Your task to perform on an android device: turn pop-ups off in chrome Image 0: 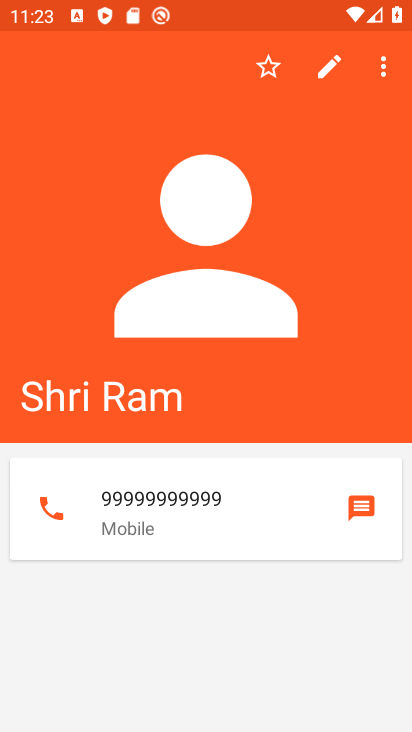
Step 0: press home button
Your task to perform on an android device: turn pop-ups off in chrome Image 1: 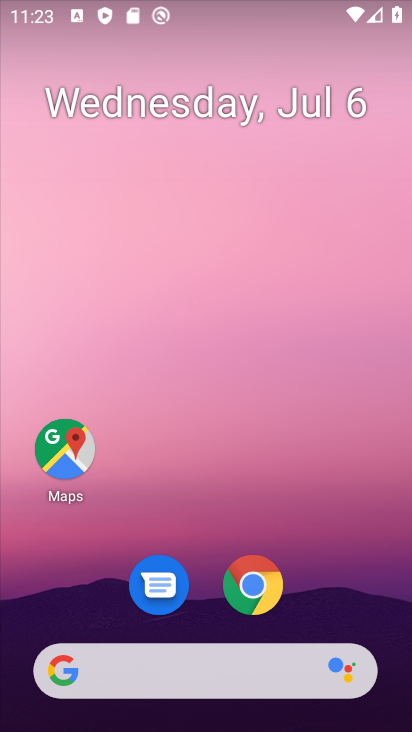
Step 1: drag from (205, 497) to (248, 61)
Your task to perform on an android device: turn pop-ups off in chrome Image 2: 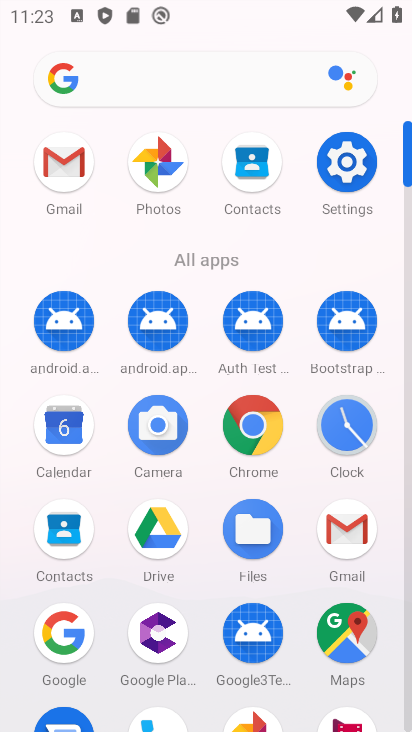
Step 2: click (239, 423)
Your task to perform on an android device: turn pop-ups off in chrome Image 3: 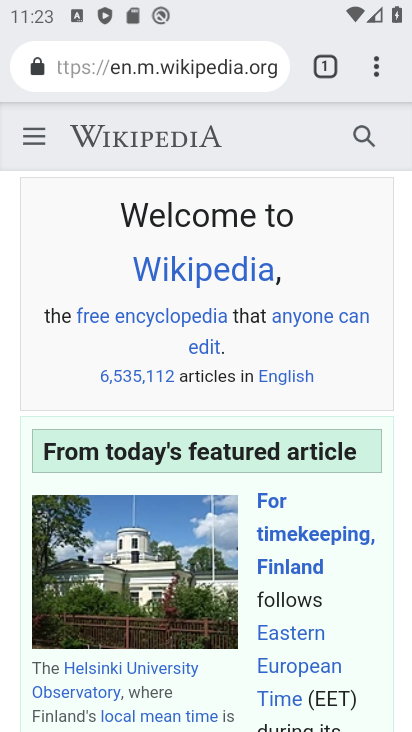
Step 3: click (374, 66)
Your task to perform on an android device: turn pop-ups off in chrome Image 4: 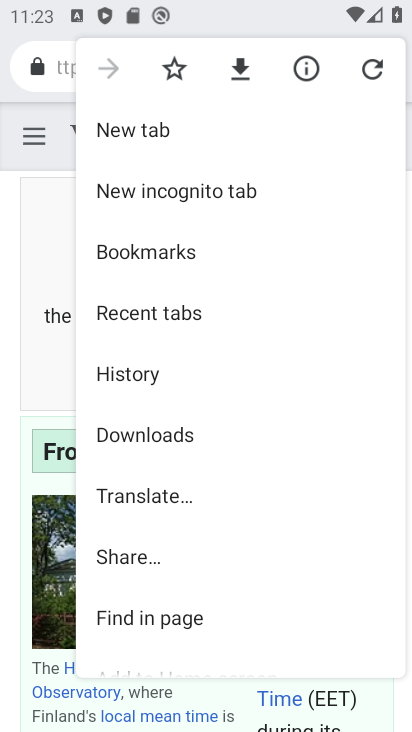
Step 4: drag from (224, 499) to (290, 208)
Your task to perform on an android device: turn pop-ups off in chrome Image 5: 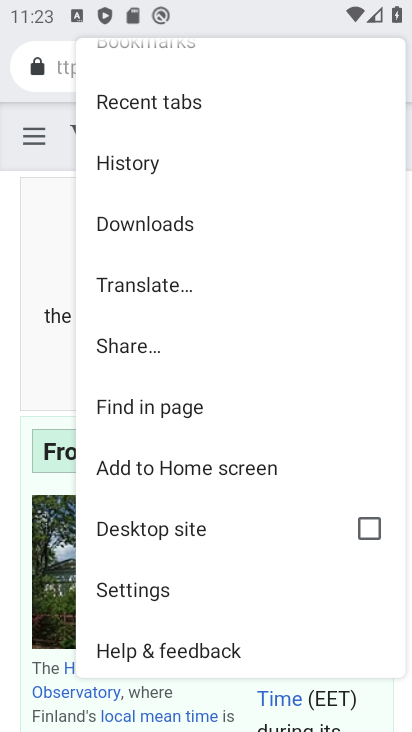
Step 5: click (144, 590)
Your task to perform on an android device: turn pop-ups off in chrome Image 6: 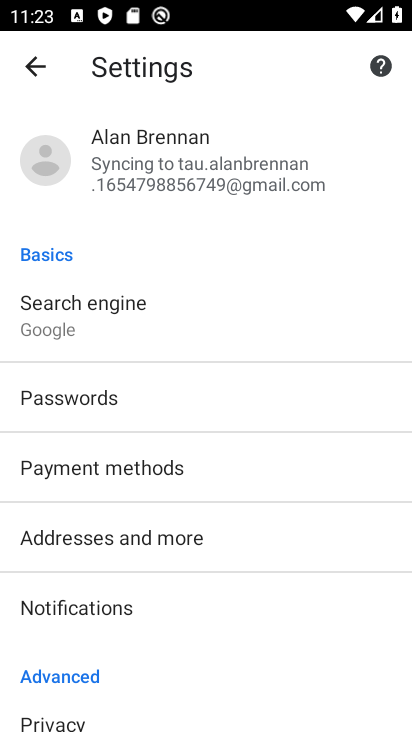
Step 6: drag from (244, 551) to (300, 136)
Your task to perform on an android device: turn pop-ups off in chrome Image 7: 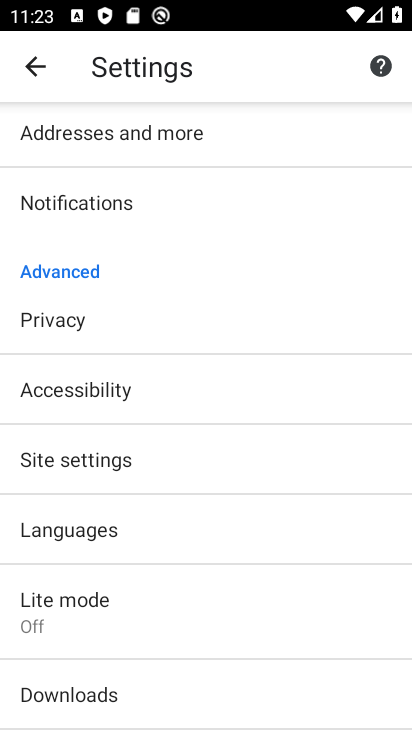
Step 7: click (166, 460)
Your task to perform on an android device: turn pop-ups off in chrome Image 8: 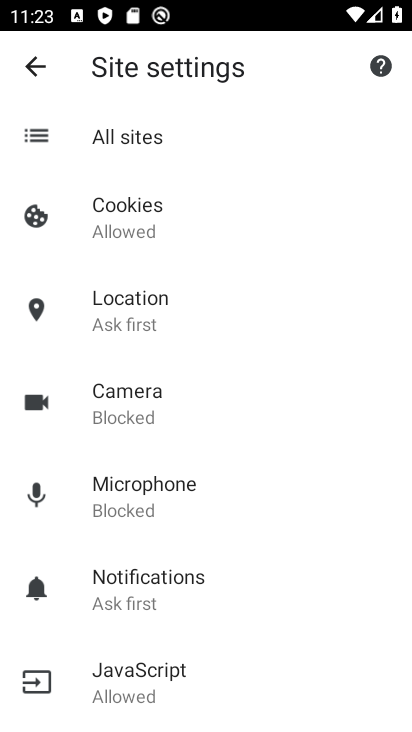
Step 8: drag from (233, 557) to (268, 245)
Your task to perform on an android device: turn pop-ups off in chrome Image 9: 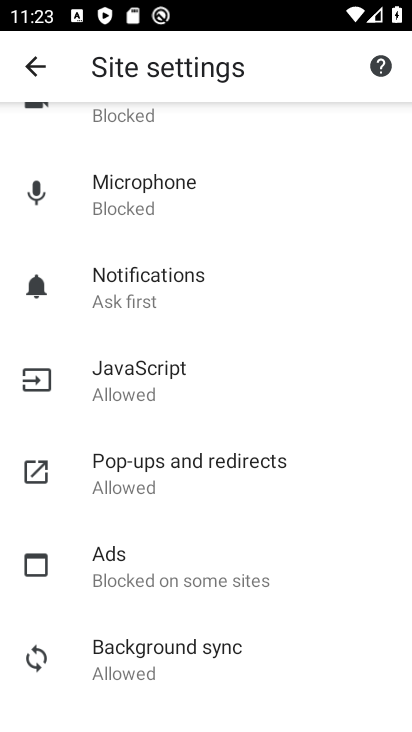
Step 9: click (215, 468)
Your task to perform on an android device: turn pop-ups off in chrome Image 10: 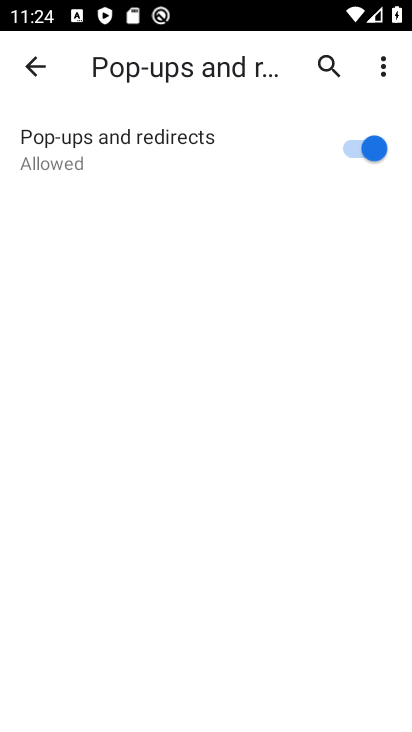
Step 10: click (354, 133)
Your task to perform on an android device: turn pop-ups off in chrome Image 11: 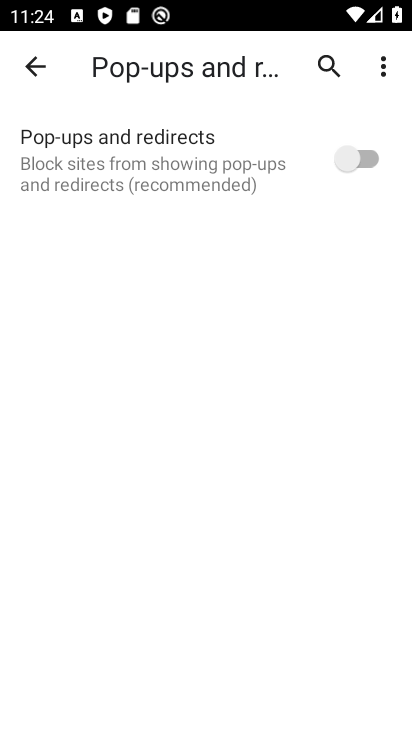
Step 11: task complete